Your task to perform on an android device: open app "Duolingo: language lessons" (install if not already installed) Image 0: 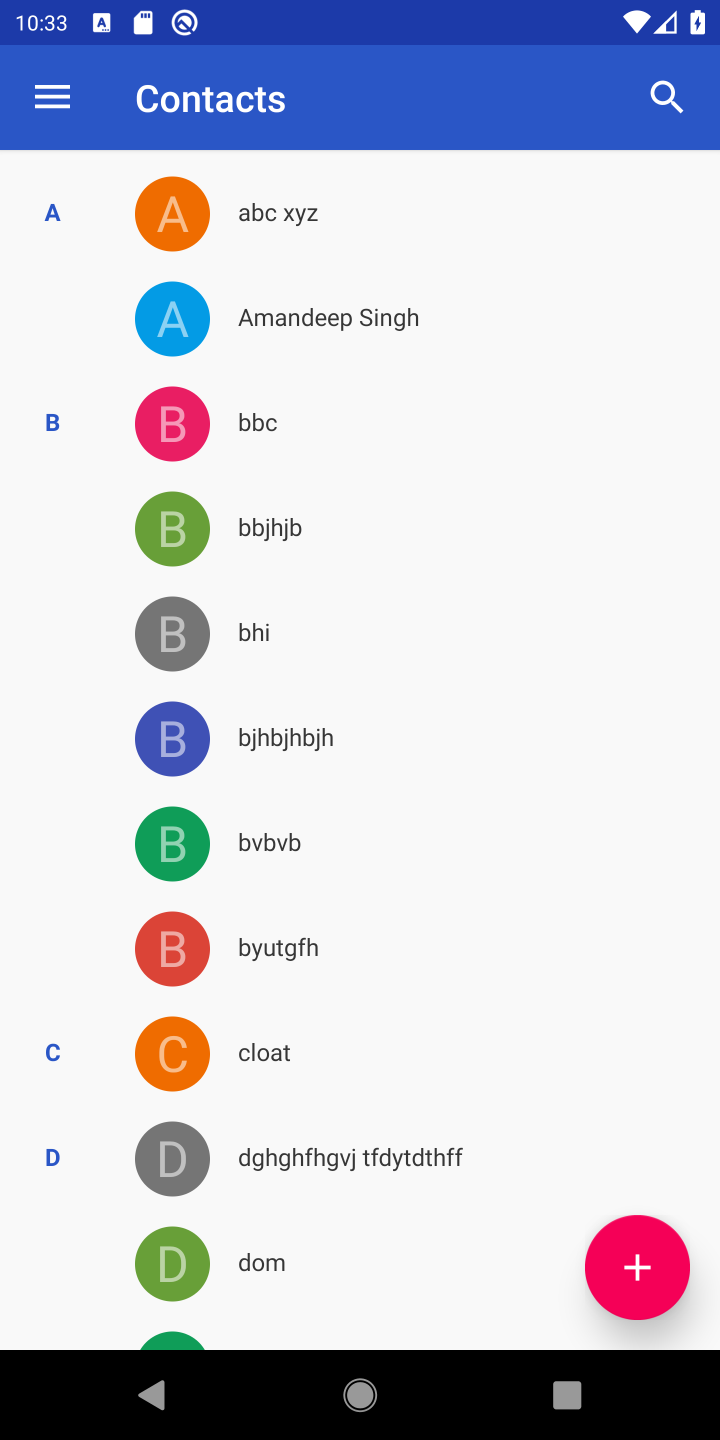
Step 0: press home button
Your task to perform on an android device: open app "Duolingo: language lessons" (install if not already installed) Image 1: 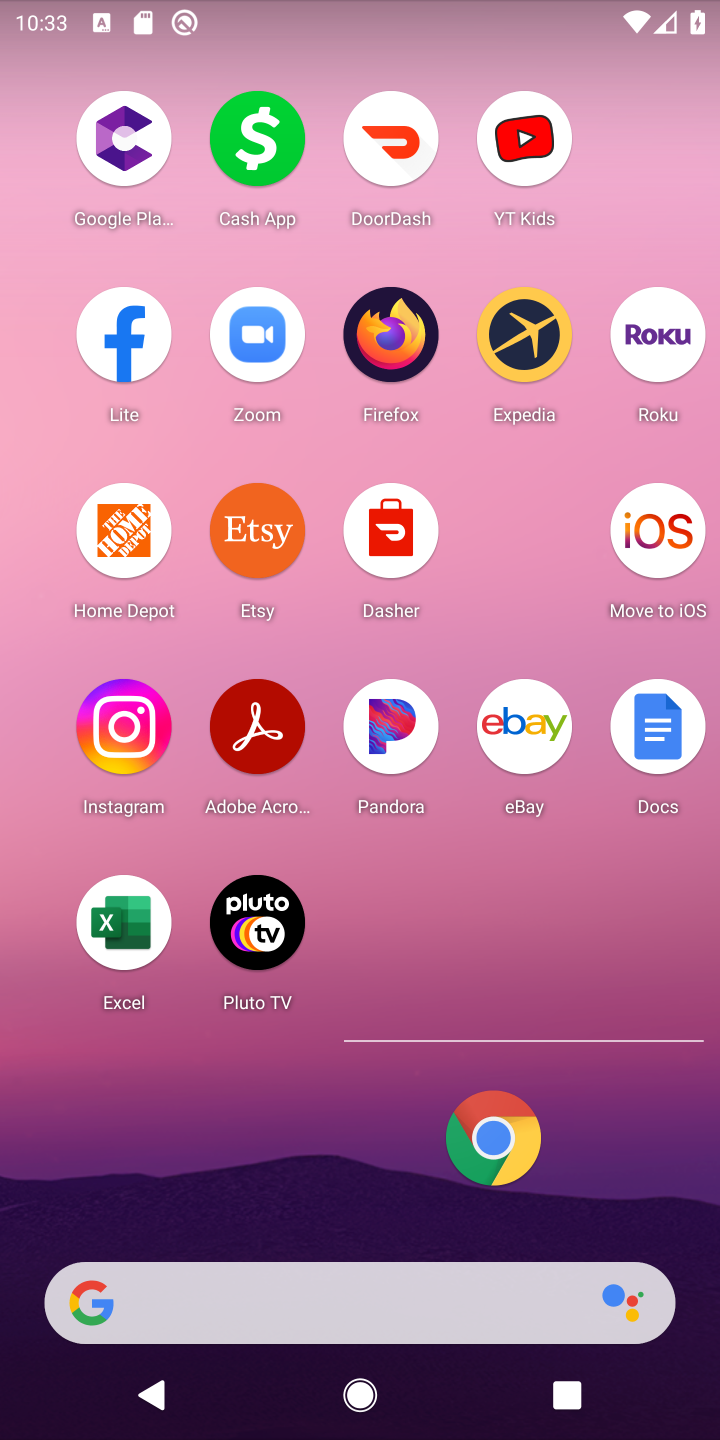
Step 1: drag from (307, 1197) to (294, 615)
Your task to perform on an android device: open app "Duolingo: language lessons" (install if not already installed) Image 2: 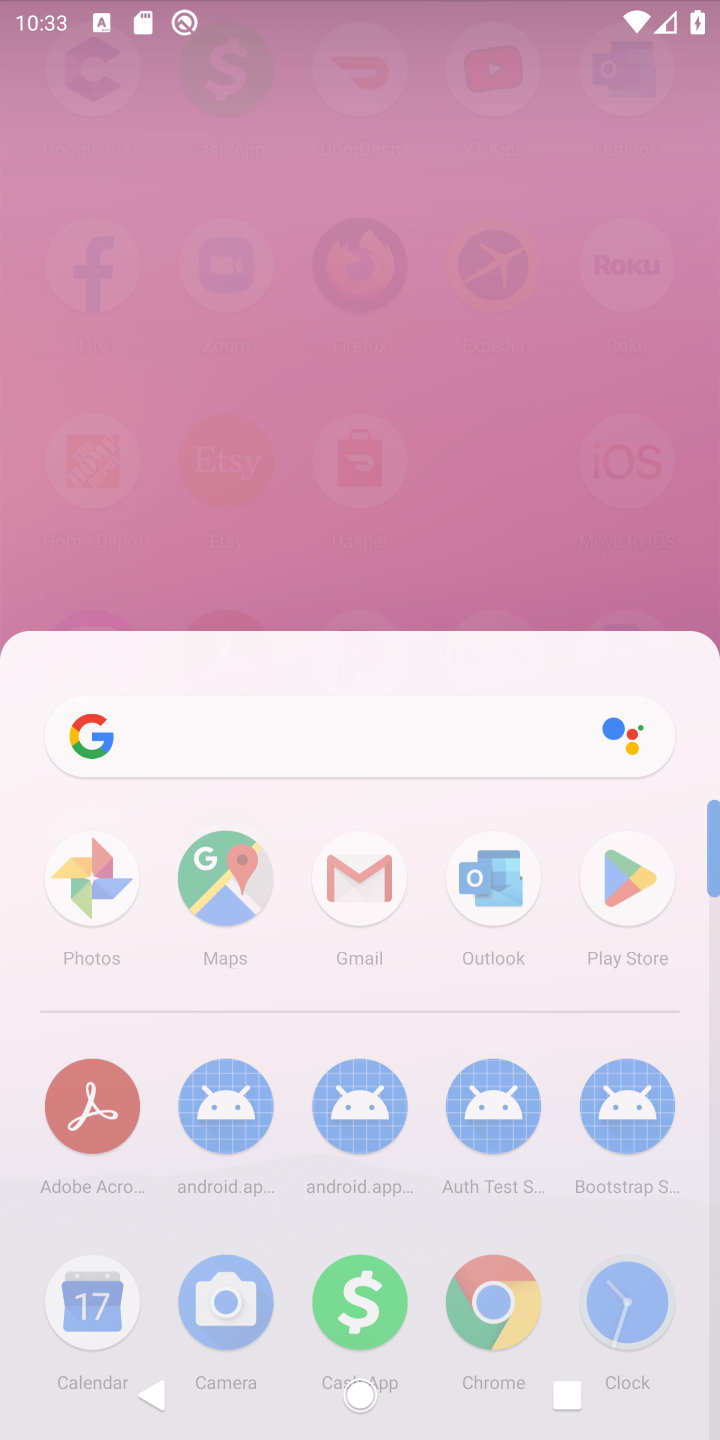
Step 2: drag from (309, 1120) to (317, 553)
Your task to perform on an android device: open app "Duolingo: language lessons" (install if not already installed) Image 3: 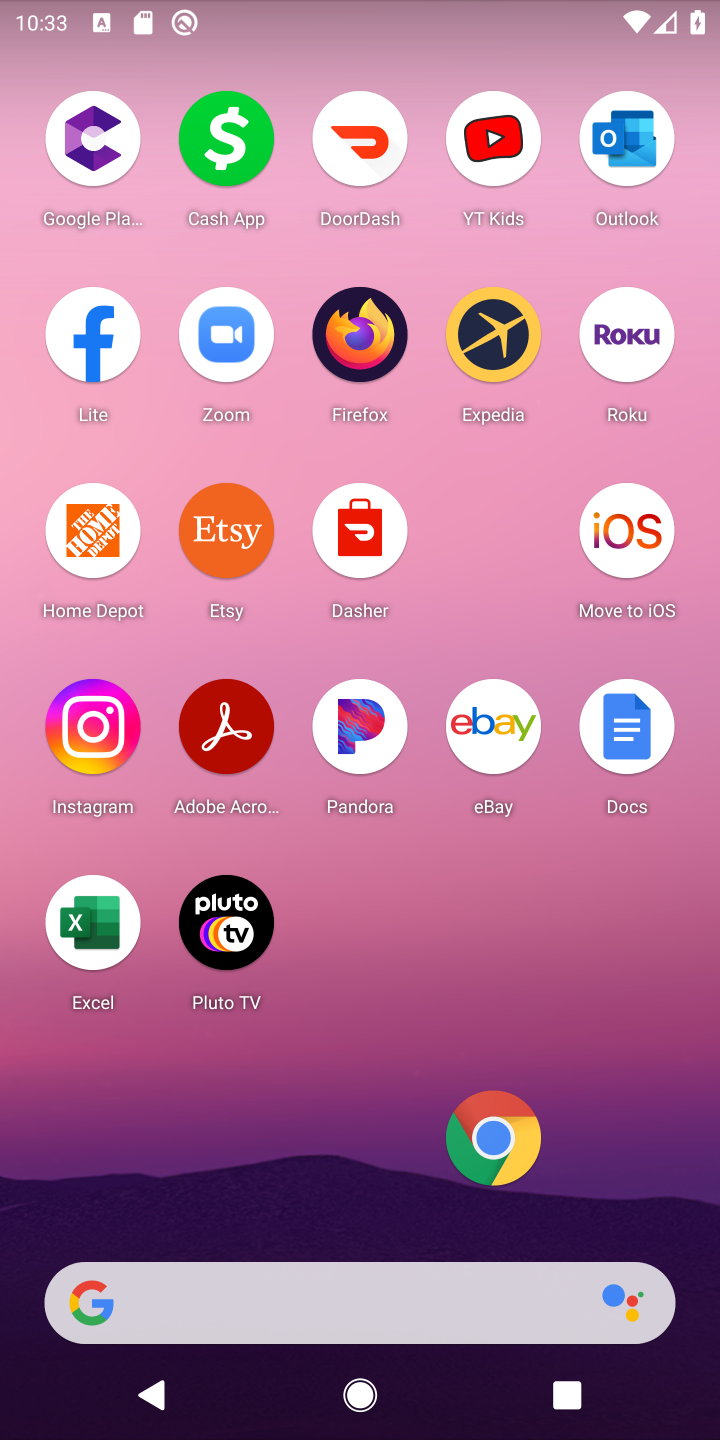
Step 3: drag from (280, 753) to (273, 410)
Your task to perform on an android device: open app "Duolingo: language lessons" (install if not already installed) Image 4: 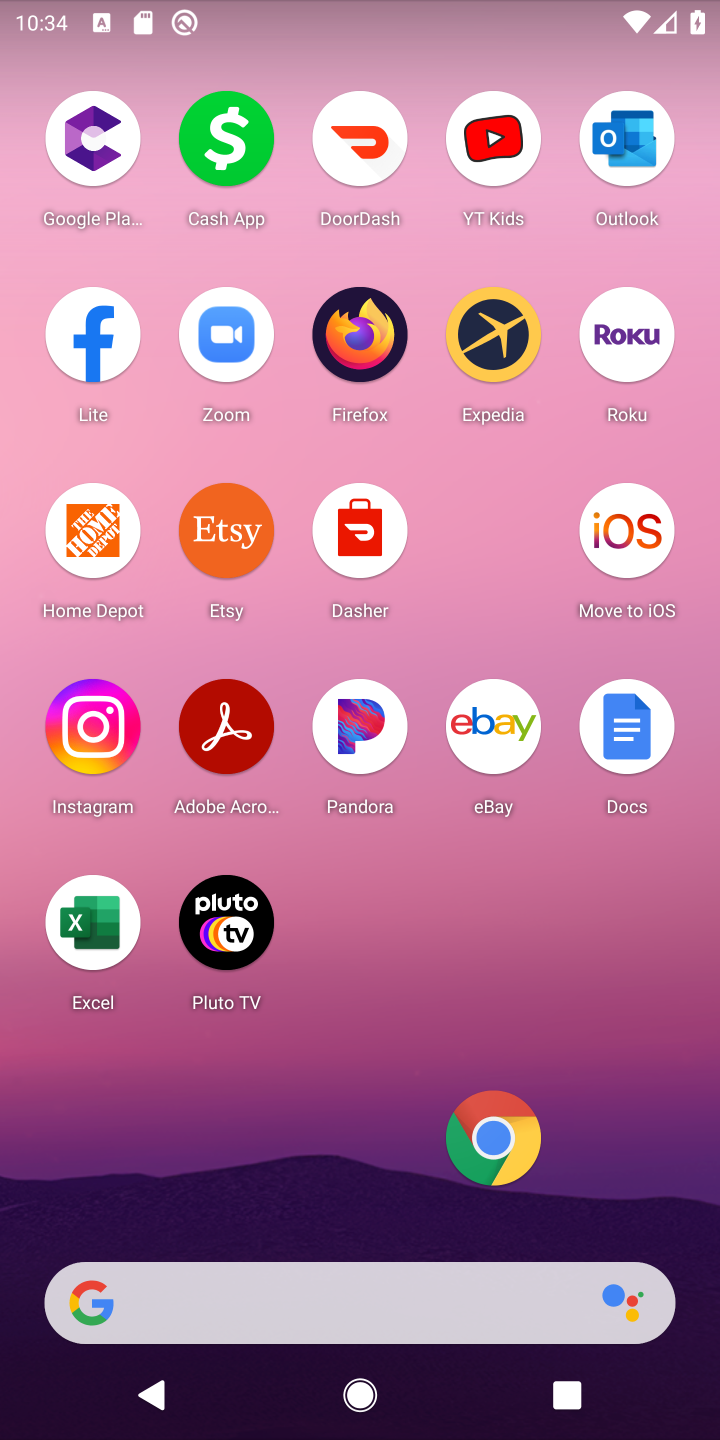
Step 4: drag from (408, 1281) to (373, 662)
Your task to perform on an android device: open app "Duolingo: language lessons" (install if not already installed) Image 5: 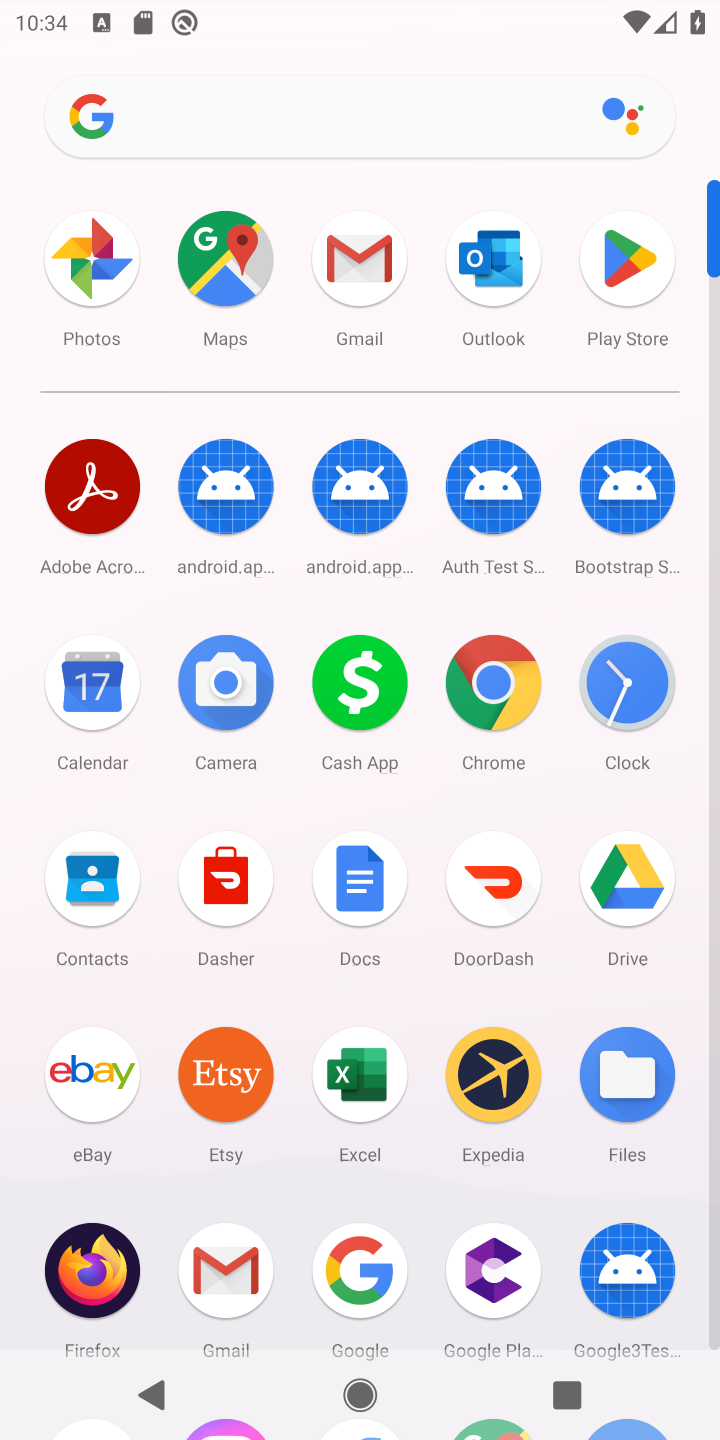
Step 5: click (626, 249)
Your task to perform on an android device: open app "Duolingo: language lessons" (install if not already installed) Image 6: 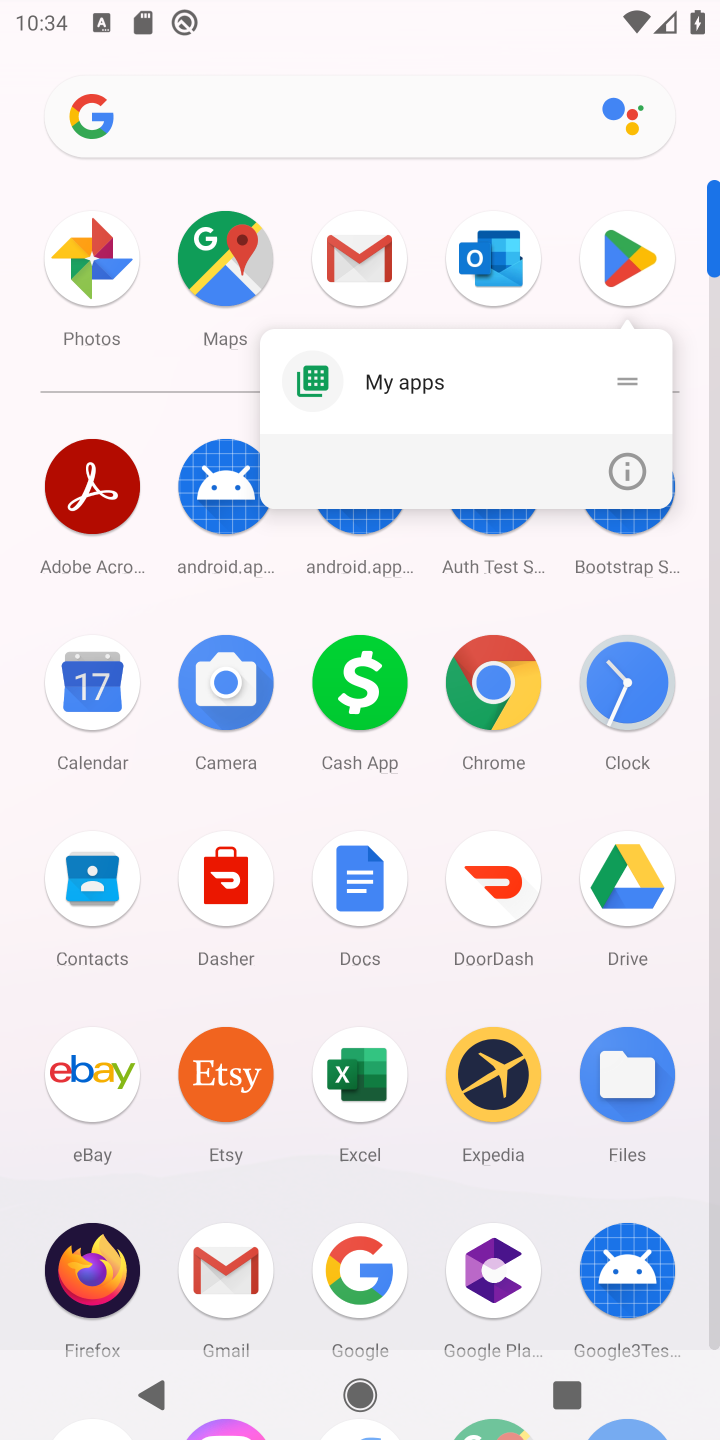
Step 6: click (636, 274)
Your task to perform on an android device: open app "Duolingo: language lessons" (install if not already installed) Image 7: 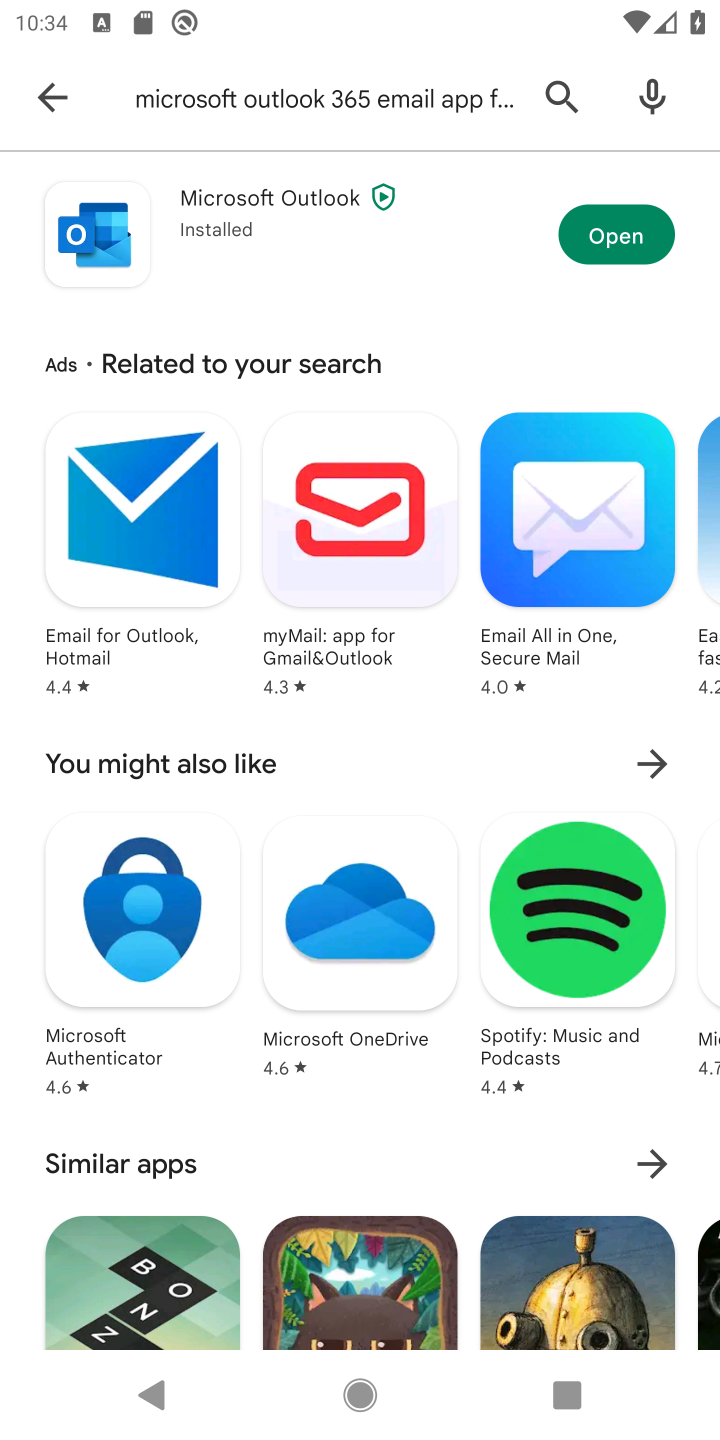
Step 7: click (54, 99)
Your task to perform on an android device: open app "Duolingo: language lessons" (install if not already installed) Image 8: 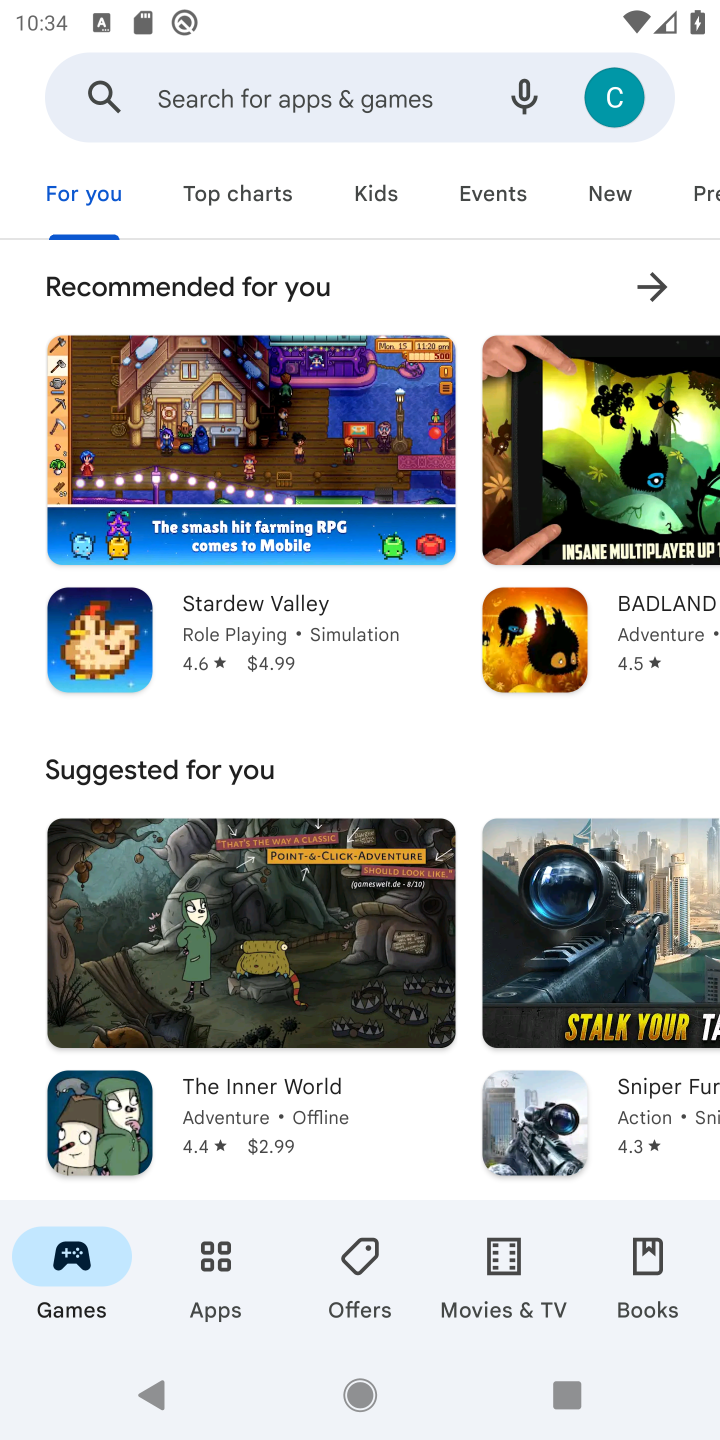
Step 8: click (345, 96)
Your task to perform on an android device: open app "Duolingo: language lessons" (install if not already installed) Image 9: 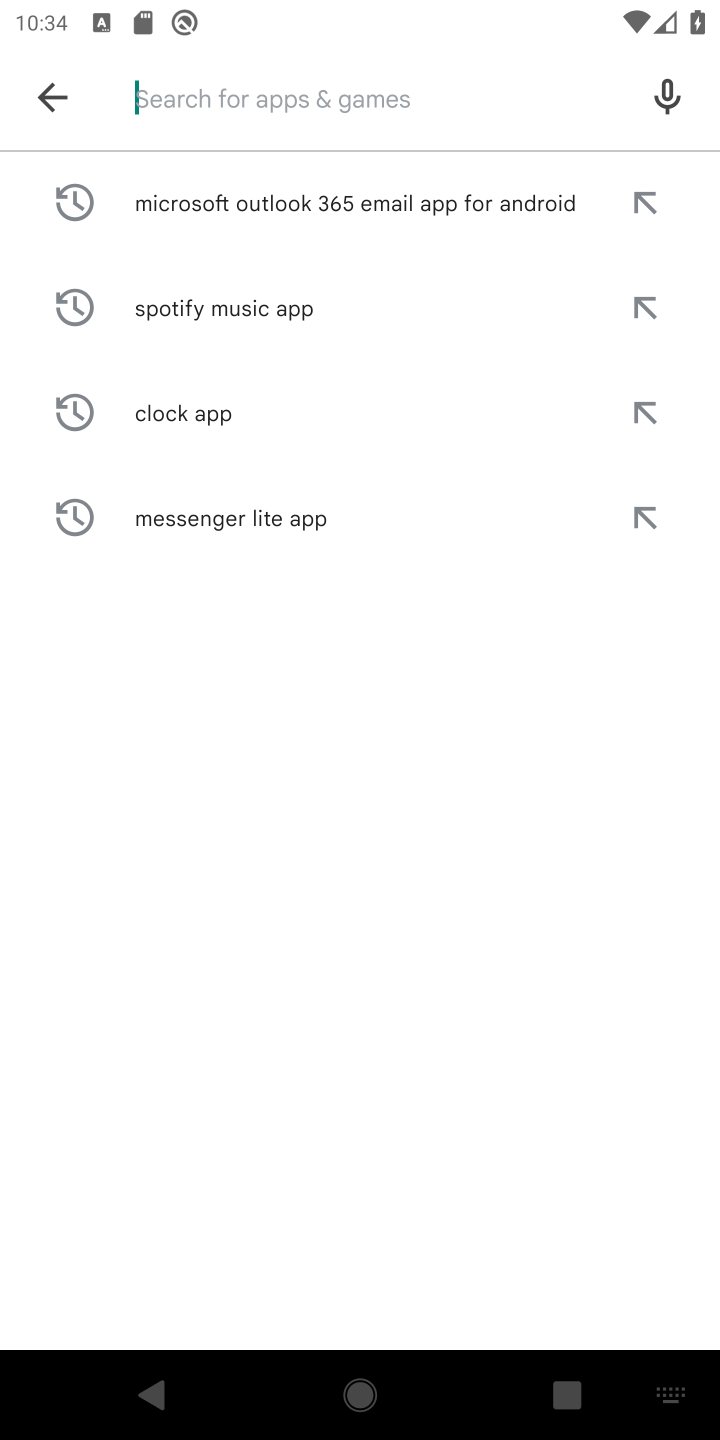
Step 9: type "Duolingo: language lessons "
Your task to perform on an android device: open app "Duolingo: language lessons" (install if not already installed) Image 10: 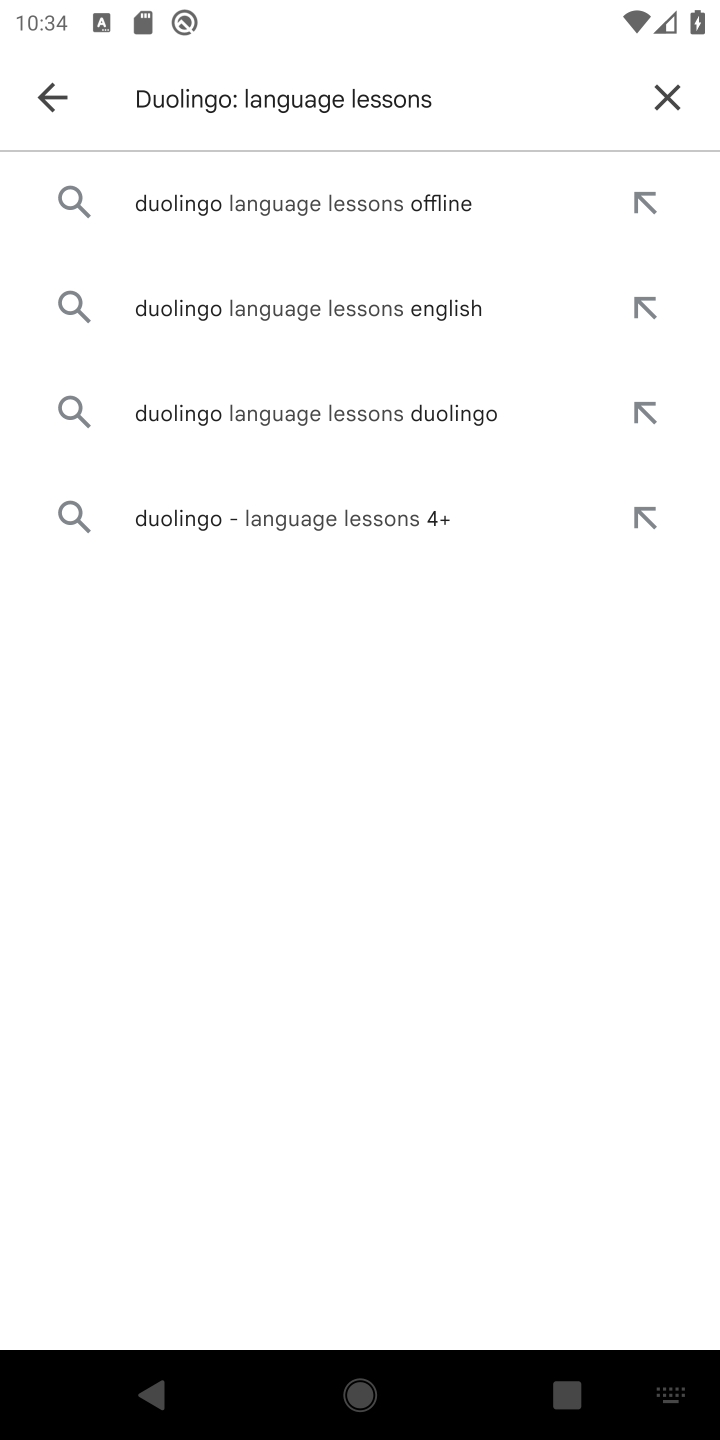
Step 10: click (319, 514)
Your task to perform on an android device: open app "Duolingo: language lessons" (install if not already installed) Image 11: 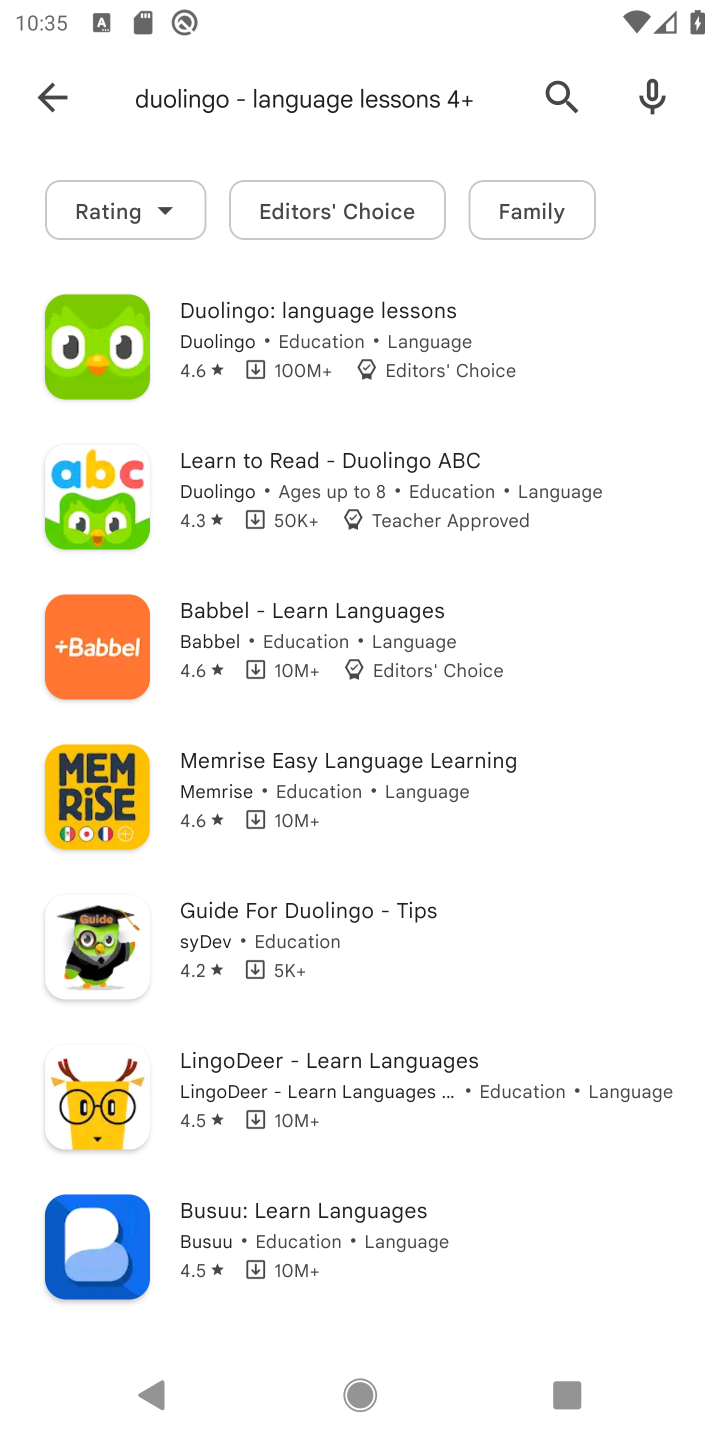
Step 11: click (402, 302)
Your task to perform on an android device: open app "Duolingo: language lessons" (install if not already installed) Image 12: 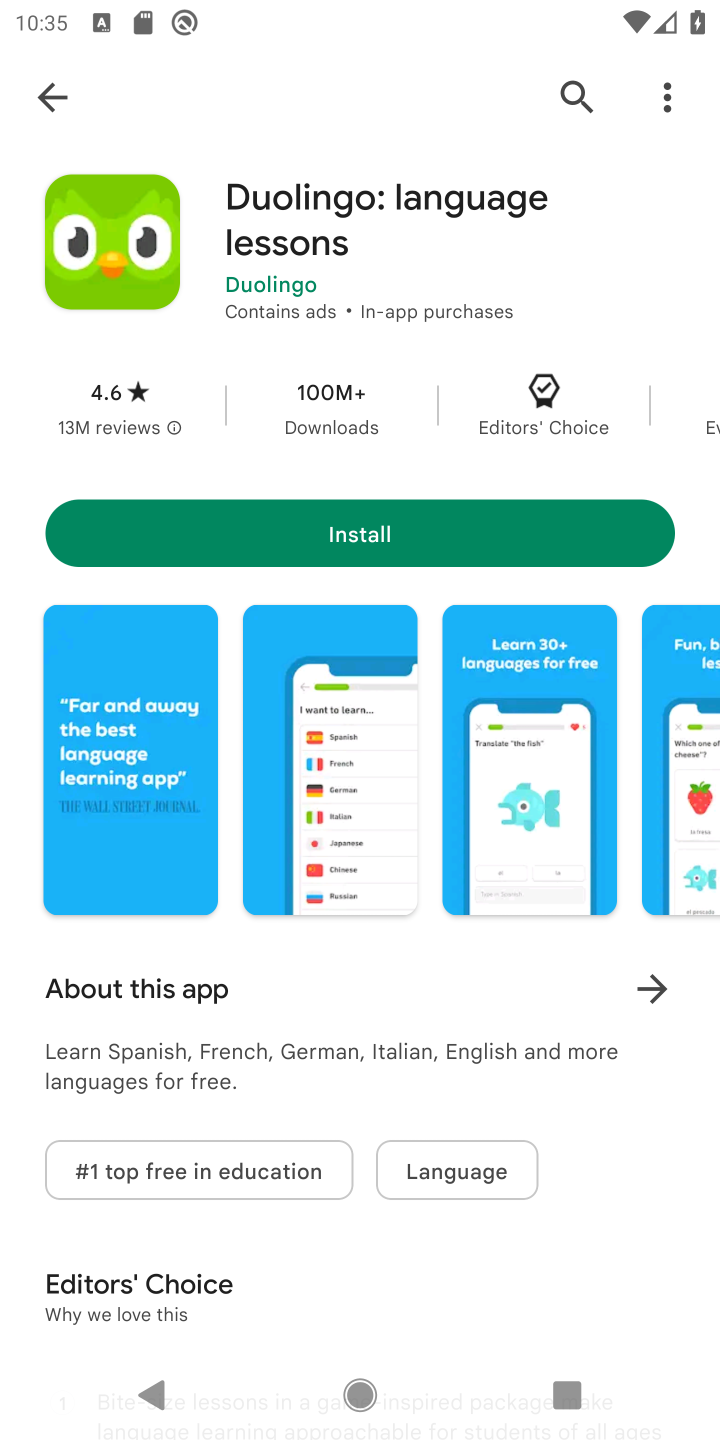
Step 12: click (357, 519)
Your task to perform on an android device: open app "Duolingo: language lessons" (install if not already installed) Image 13: 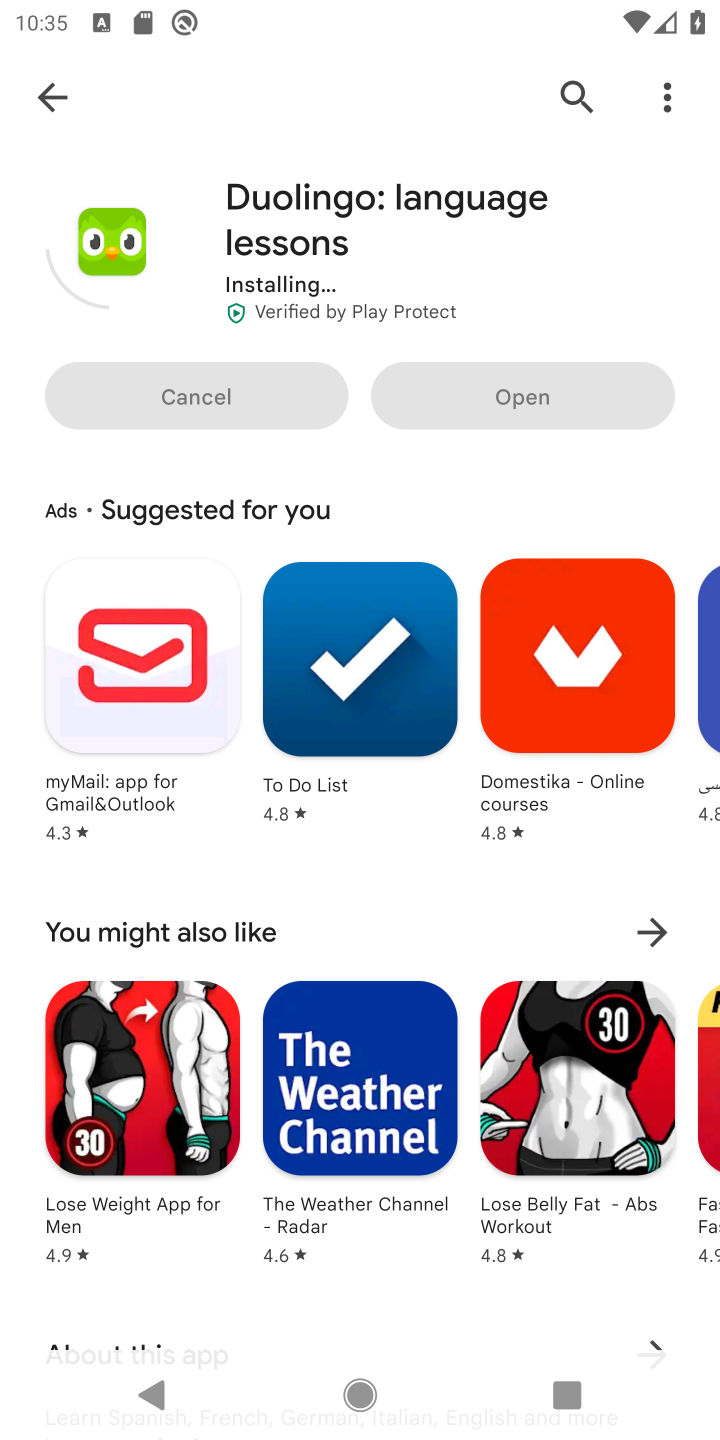
Step 13: task complete